Your task to perform on an android device: Open privacy settings Image 0: 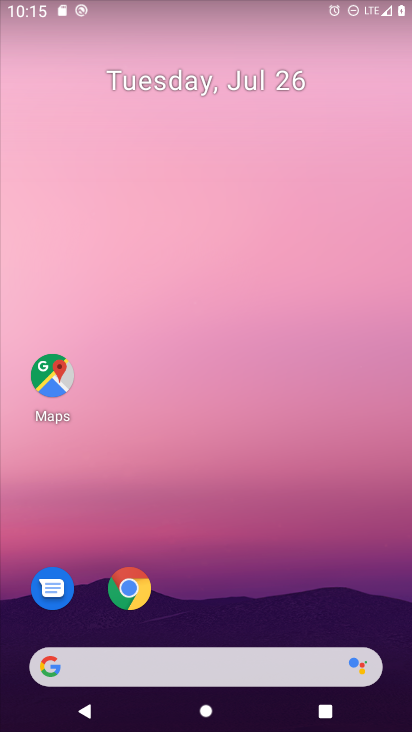
Step 0: drag from (228, 699) to (264, 301)
Your task to perform on an android device: Open privacy settings Image 1: 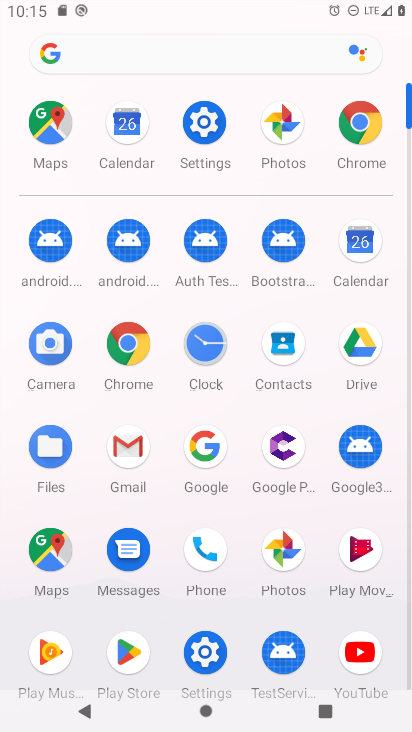
Step 1: click (216, 133)
Your task to perform on an android device: Open privacy settings Image 2: 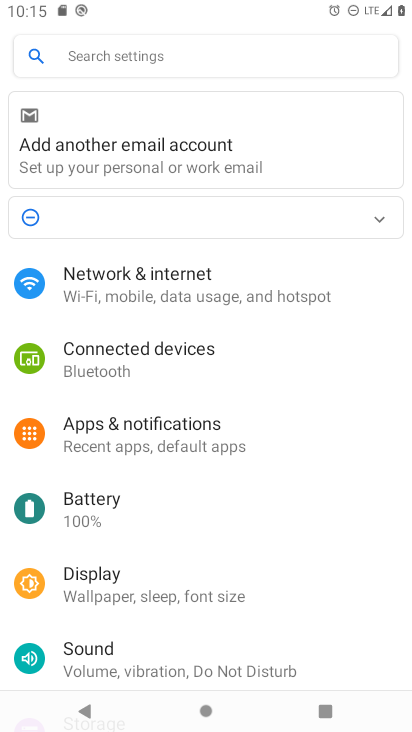
Step 2: drag from (154, 580) to (168, 197)
Your task to perform on an android device: Open privacy settings Image 3: 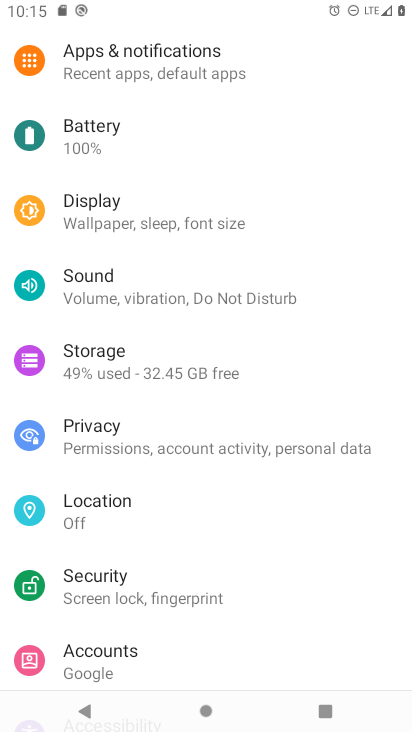
Step 3: click (117, 434)
Your task to perform on an android device: Open privacy settings Image 4: 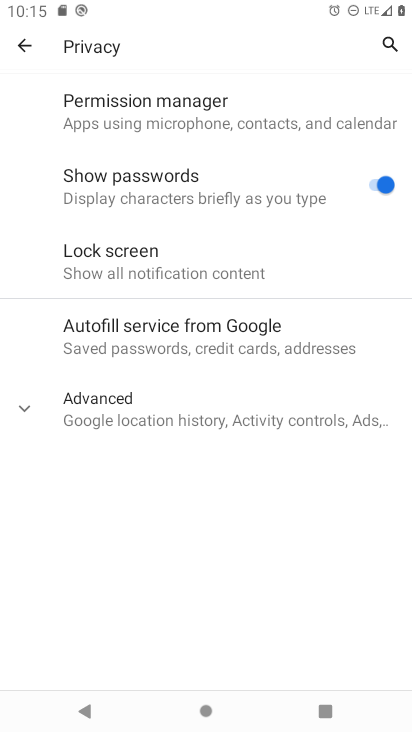
Step 4: task complete